Your task to perform on an android device: Open internet settings Image 0: 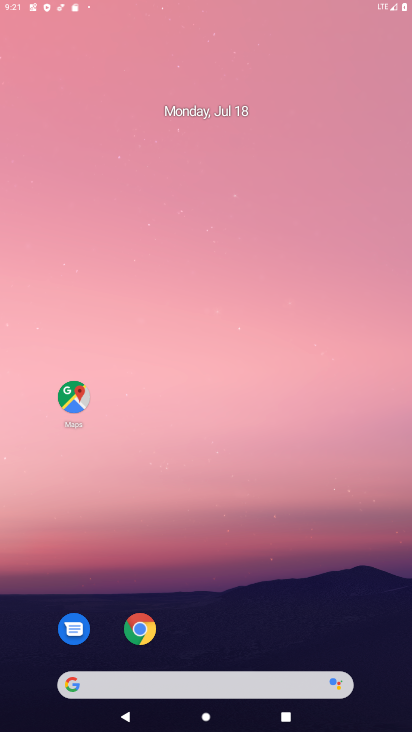
Step 0: drag from (298, 506) to (266, 105)
Your task to perform on an android device: Open internet settings Image 1: 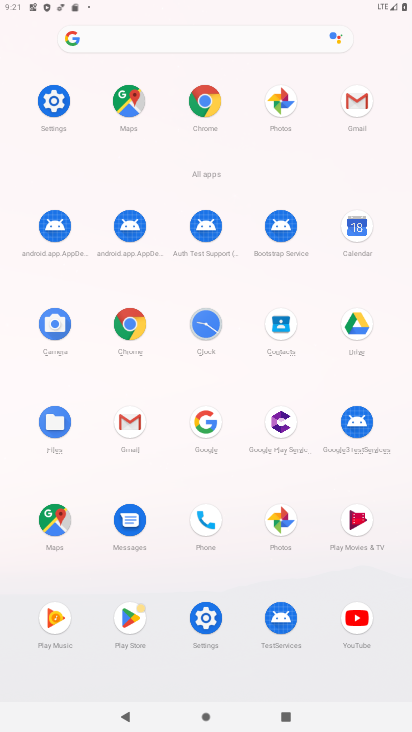
Step 1: click (55, 103)
Your task to perform on an android device: Open internet settings Image 2: 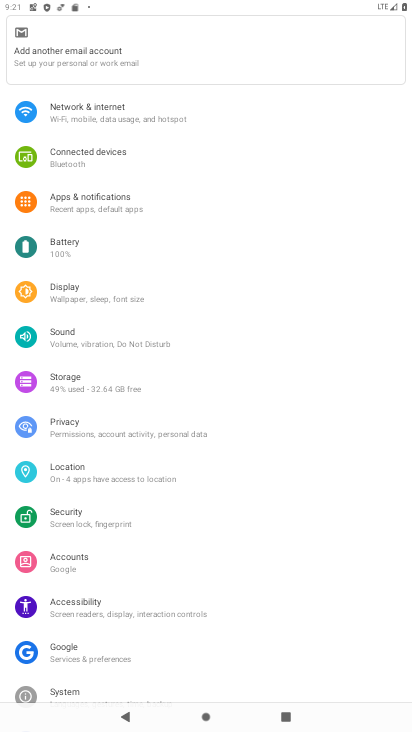
Step 2: click (119, 123)
Your task to perform on an android device: Open internet settings Image 3: 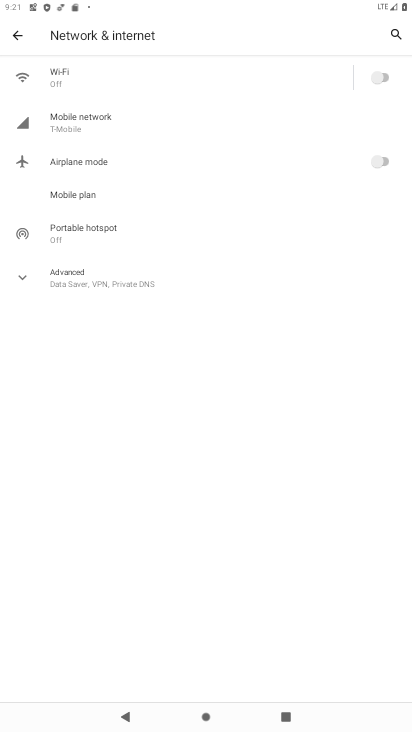
Step 3: click (95, 285)
Your task to perform on an android device: Open internet settings Image 4: 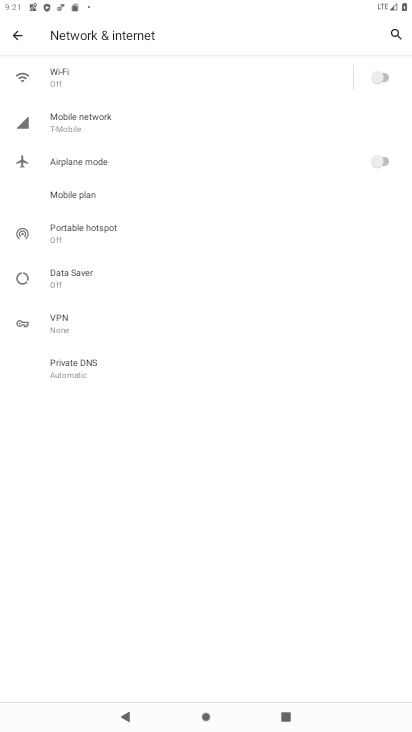
Step 4: task complete